Your task to perform on an android device: Open location settings Image 0: 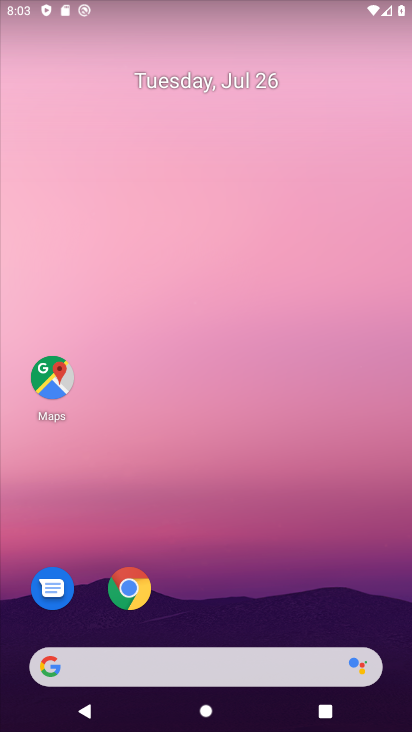
Step 0: drag from (283, 635) to (274, 0)
Your task to perform on an android device: Open location settings Image 1: 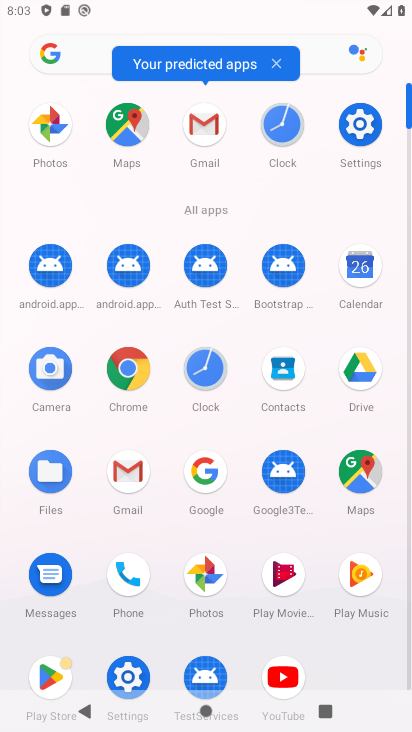
Step 1: click (358, 129)
Your task to perform on an android device: Open location settings Image 2: 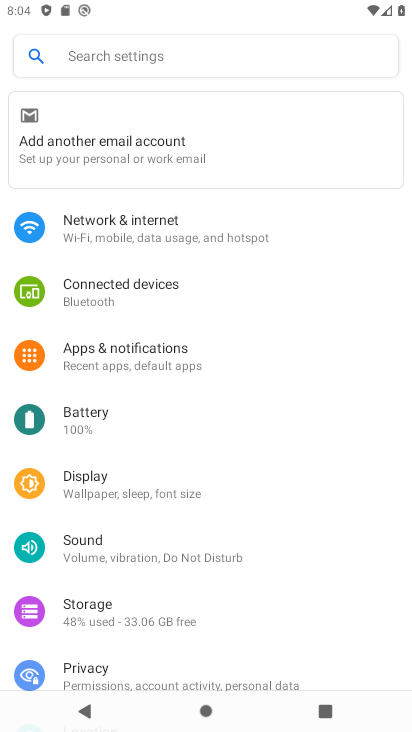
Step 2: drag from (134, 590) to (160, 325)
Your task to perform on an android device: Open location settings Image 3: 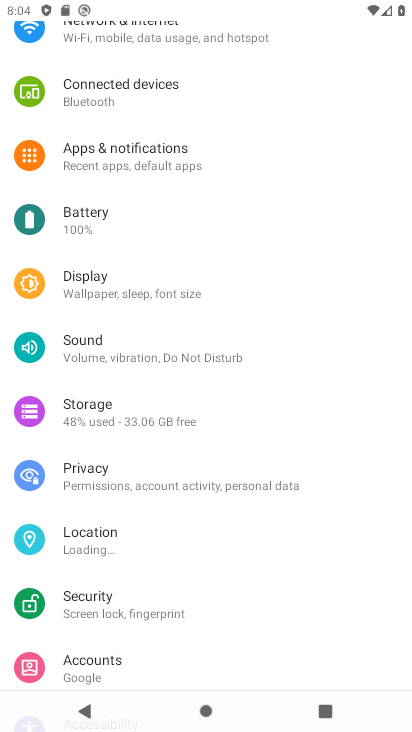
Step 3: click (94, 540)
Your task to perform on an android device: Open location settings Image 4: 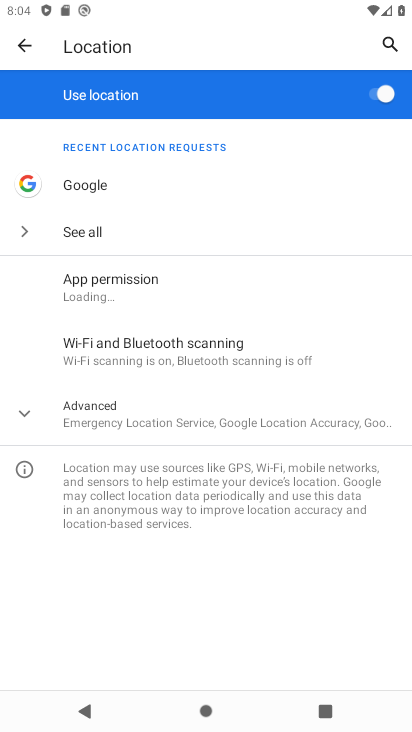
Step 4: task complete